Your task to perform on an android device: stop showing notifications on the lock screen Image 0: 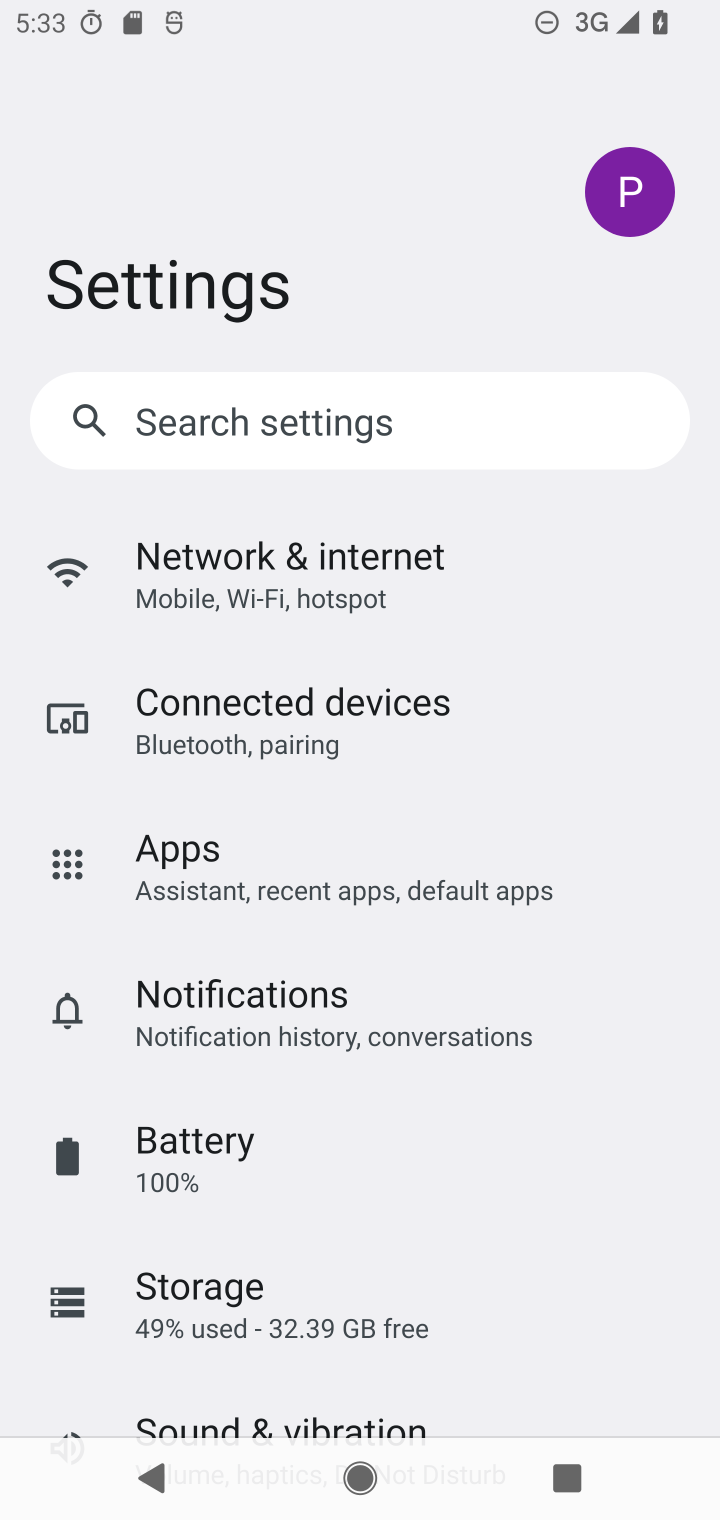
Step 0: press home button
Your task to perform on an android device: stop showing notifications on the lock screen Image 1: 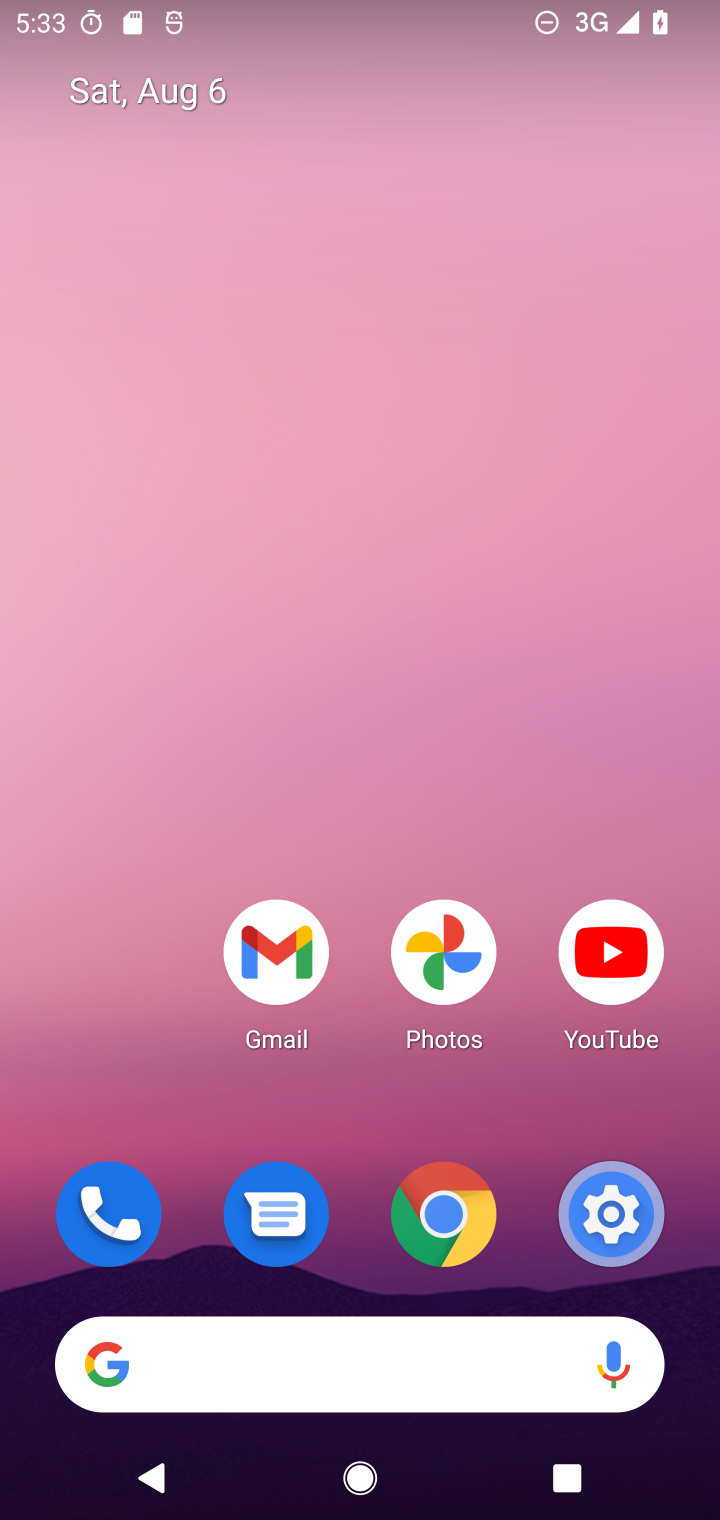
Step 1: click (609, 1225)
Your task to perform on an android device: stop showing notifications on the lock screen Image 2: 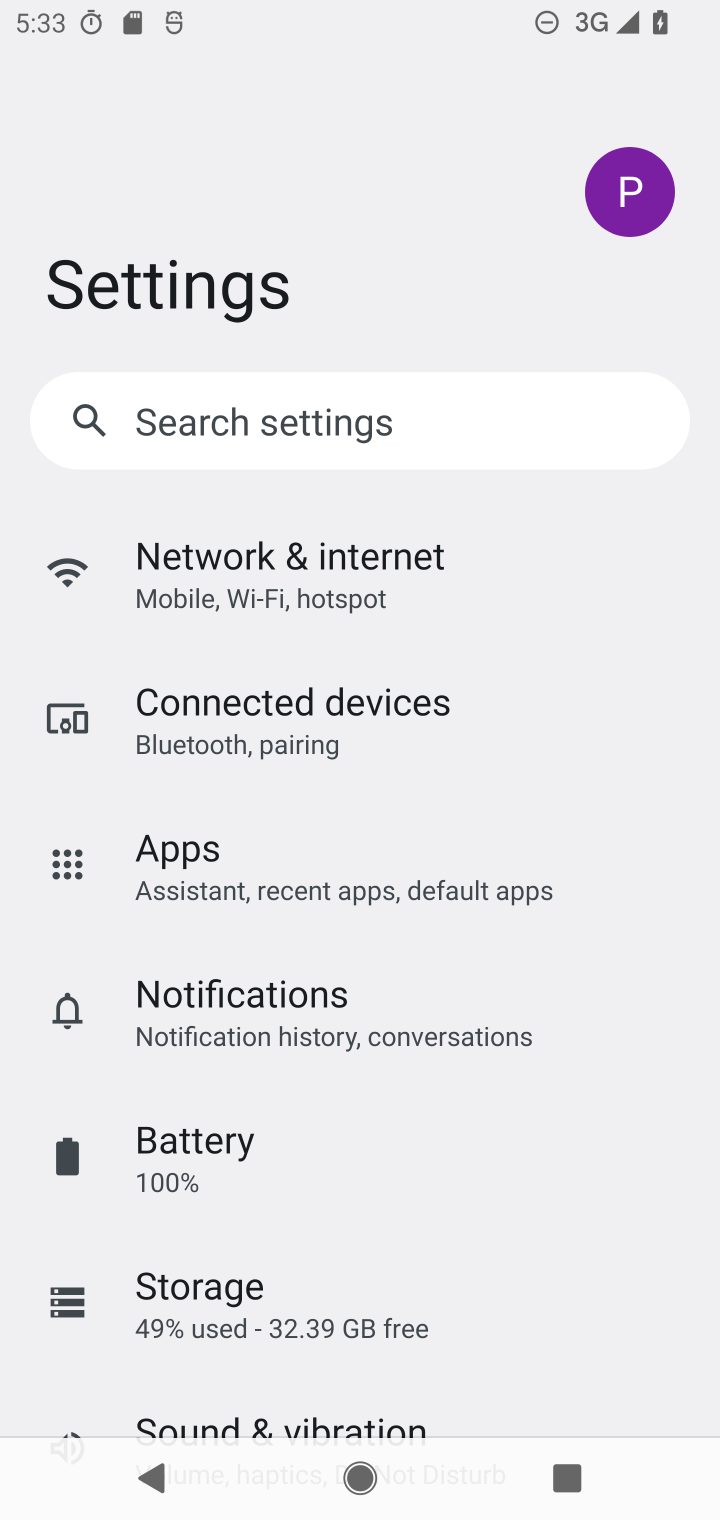
Step 2: click (244, 999)
Your task to perform on an android device: stop showing notifications on the lock screen Image 3: 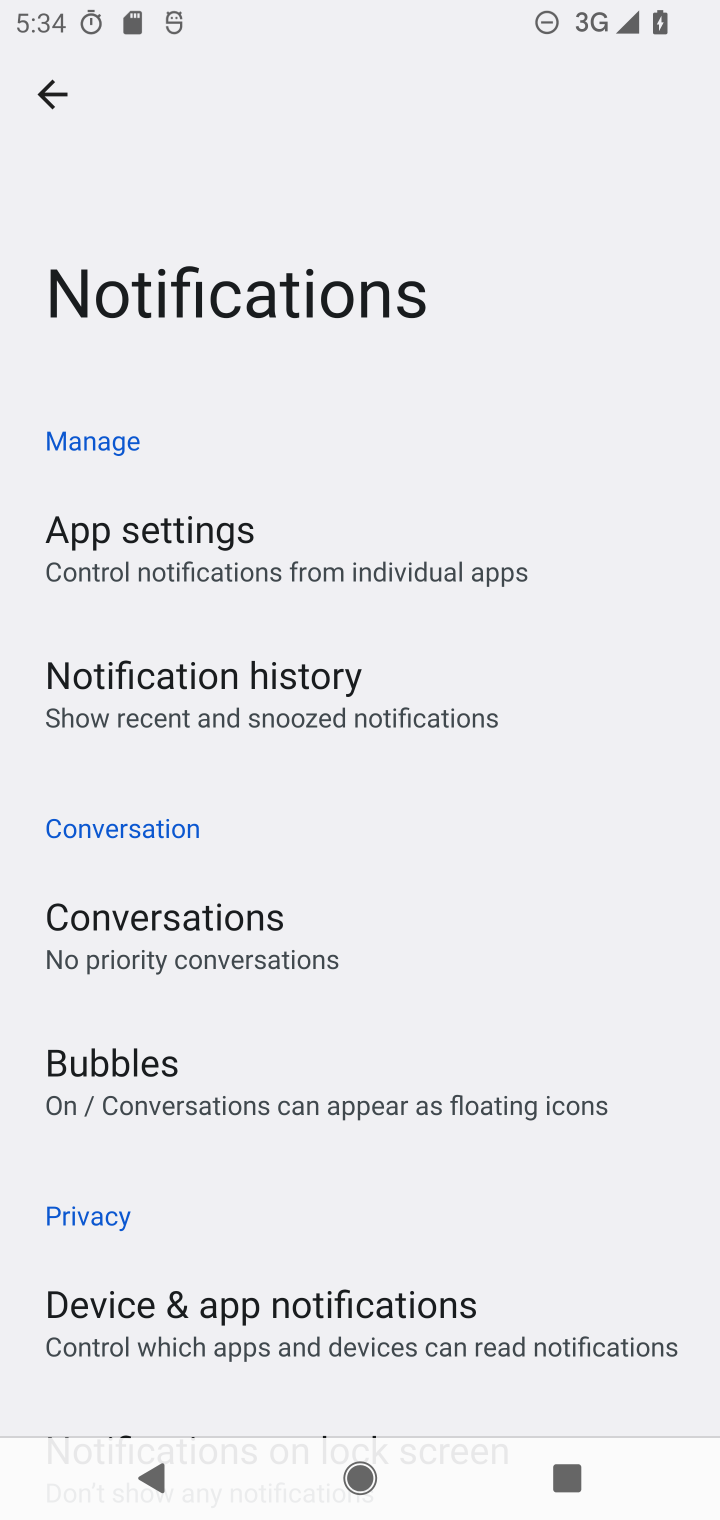
Step 3: drag from (426, 1252) to (420, 704)
Your task to perform on an android device: stop showing notifications on the lock screen Image 4: 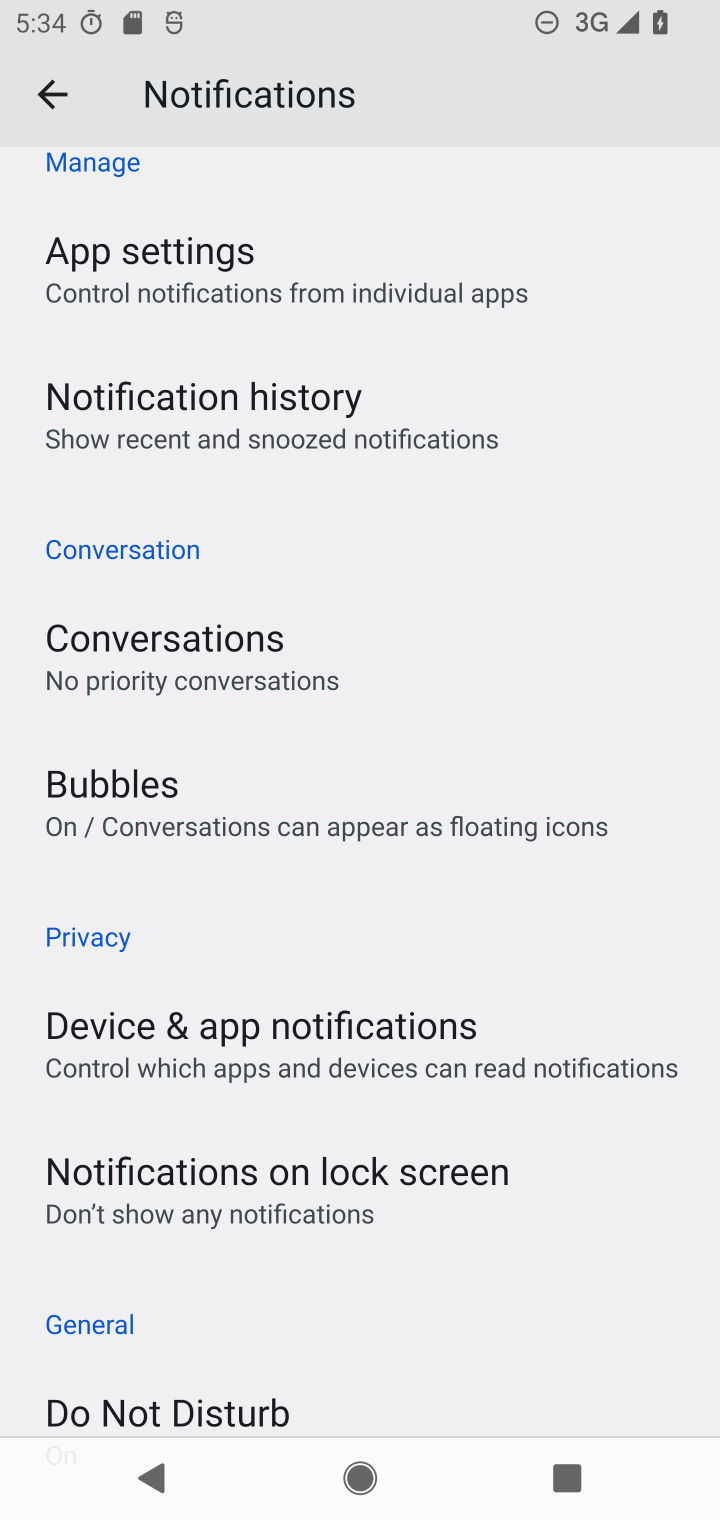
Step 4: click (264, 1216)
Your task to perform on an android device: stop showing notifications on the lock screen Image 5: 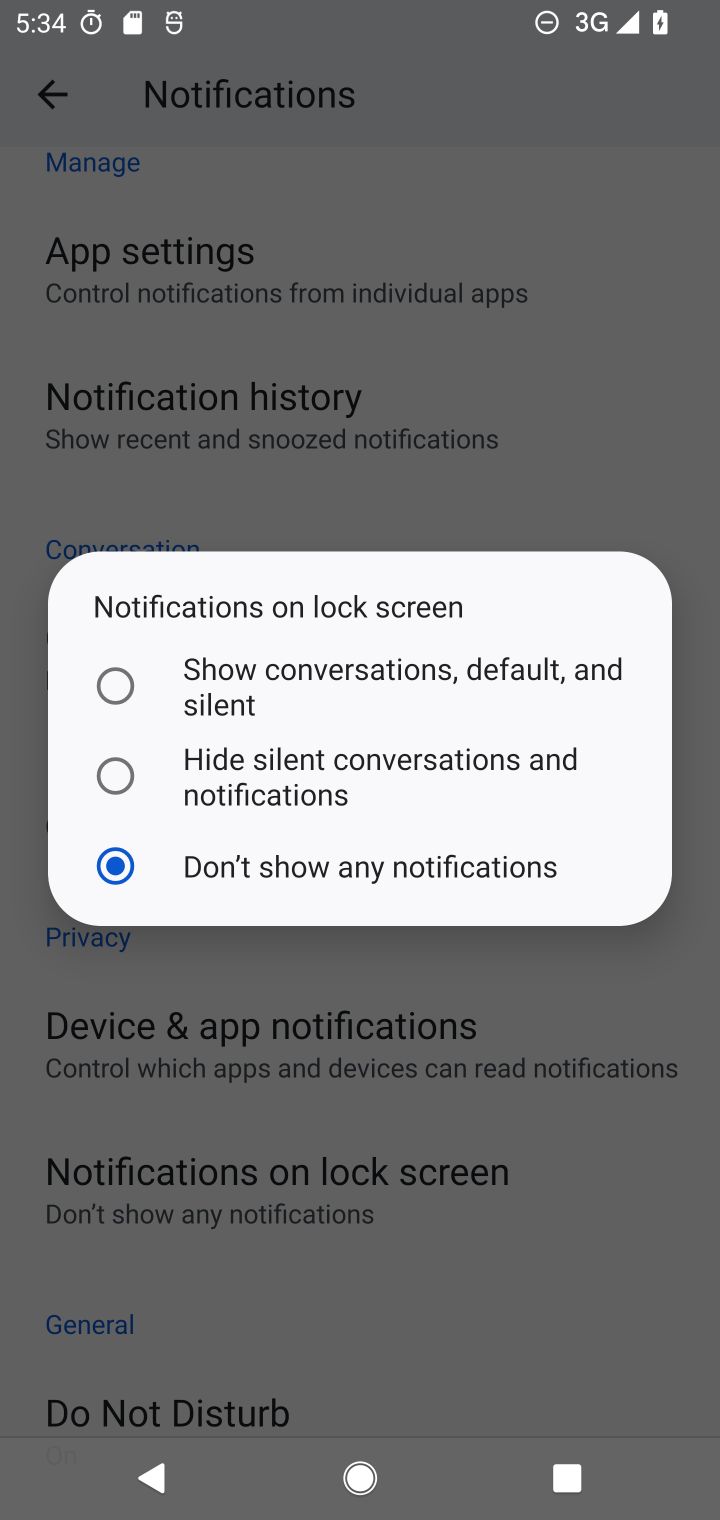
Step 5: task complete